Your task to perform on an android device: check the backup settings in the google photos Image 0: 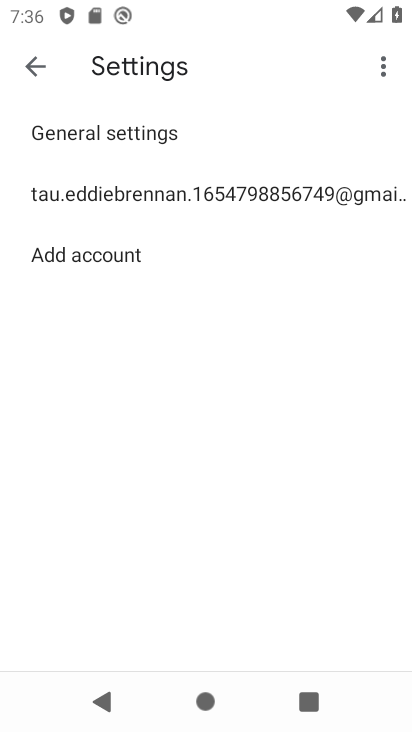
Step 0: press home button
Your task to perform on an android device: check the backup settings in the google photos Image 1: 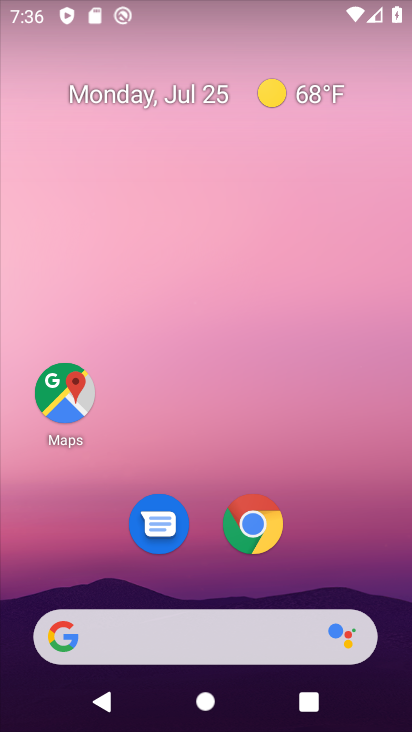
Step 1: drag from (325, 562) to (279, 29)
Your task to perform on an android device: check the backup settings in the google photos Image 2: 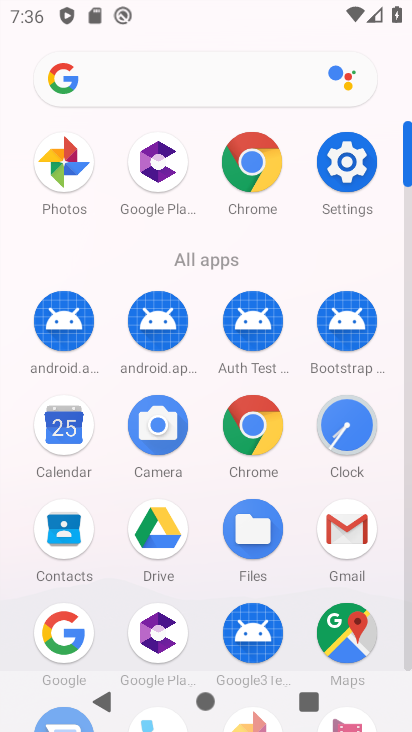
Step 2: click (72, 168)
Your task to perform on an android device: check the backup settings in the google photos Image 3: 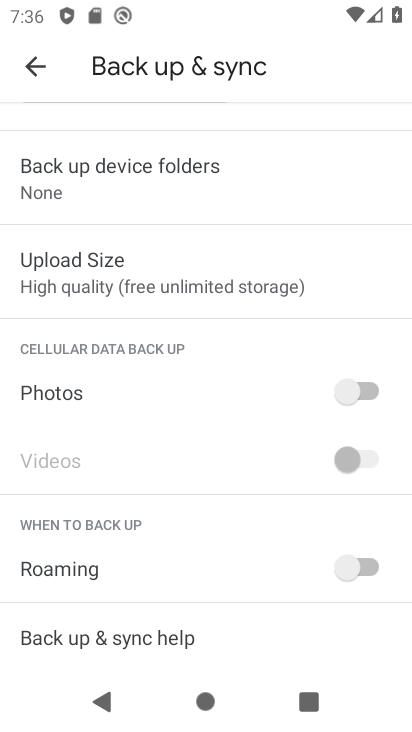
Step 3: task complete